Your task to perform on an android device: manage bookmarks in the chrome app Image 0: 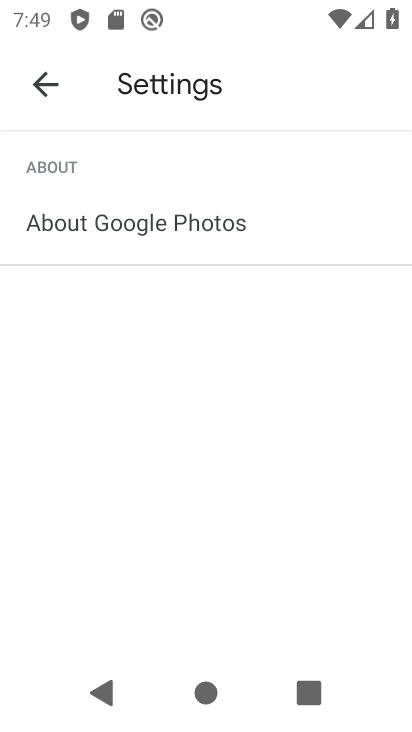
Step 0: press home button
Your task to perform on an android device: manage bookmarks in the chrome app Image 1: 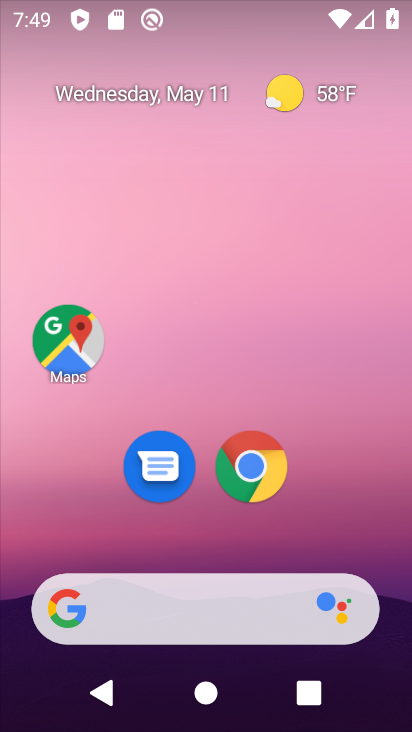
Step 1: click (255, 459)
Your task to perform on an android device: manage bookmarks in the chrome app Image 2: 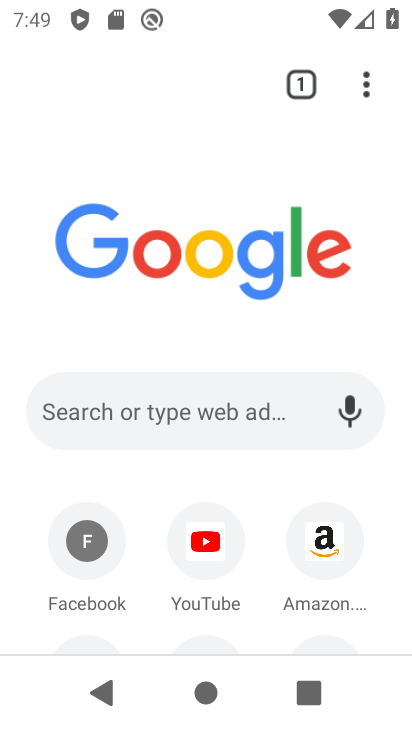
Step 2: click (366, 78)
Your task to perform on an android device: manage bookmarks in the chrome app Image 3: 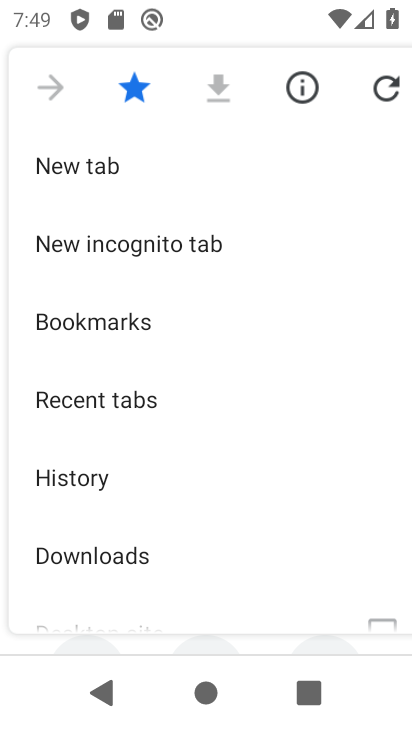
Step 3: click (168, 332)
Your task to perform on an android device: manage bookmarks in the chrome app Image 4: 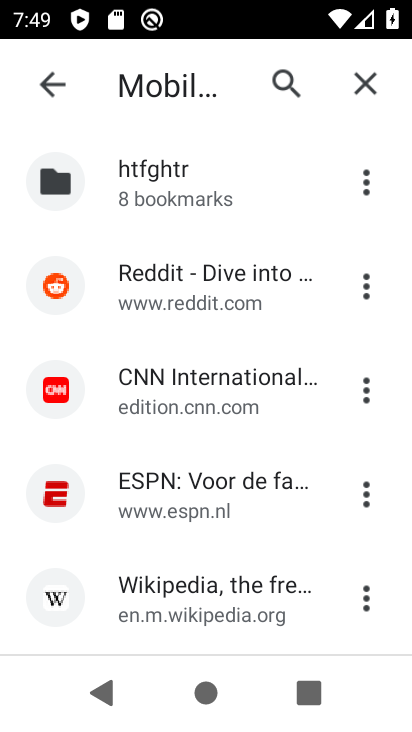
Step 4: click (362, 297)
Your task to perform on an android device: manage bookmarks in the chrome app Image 5: 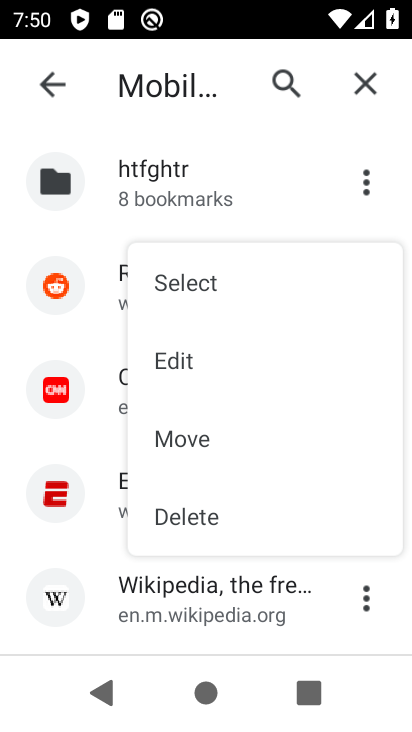
Step 5: click (193, 506)
Your task to perform on an android device: manage bookmarks in the chrome app Image 6: 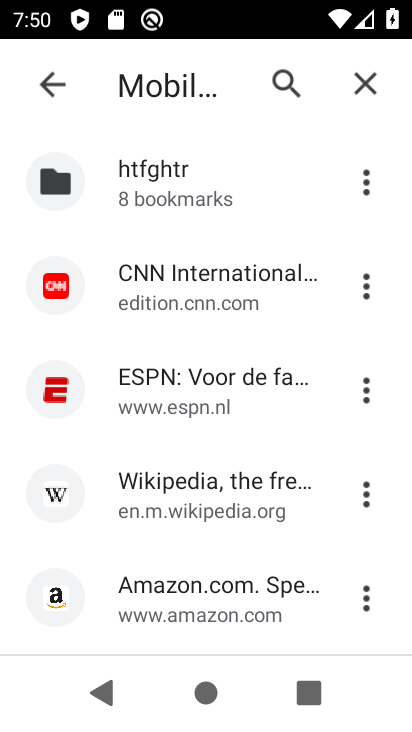
Step 6: task complete